Your task to perform on an android device: Go to Google maps Image 0: 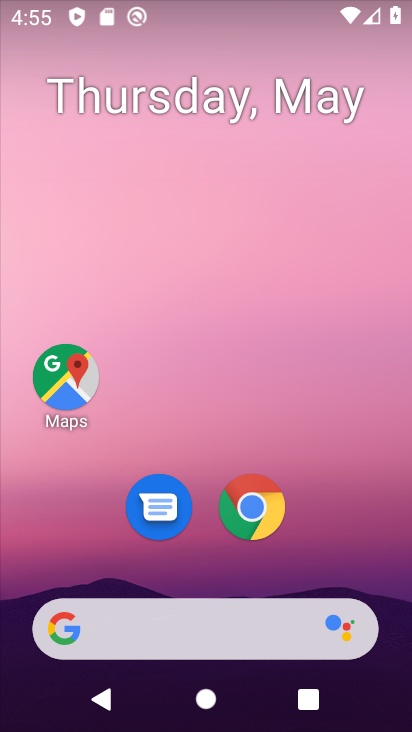
Step 0: drag from (344, 507) to (299, 127)
Your task to perform on an android device: Go to Google maps Image 1: 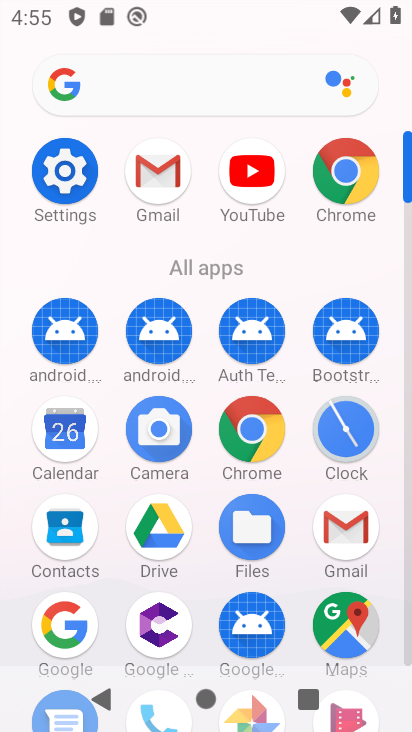
Step 1: click (343, 622)
Your task to perform on an android device: Go to Google maps Image 2: 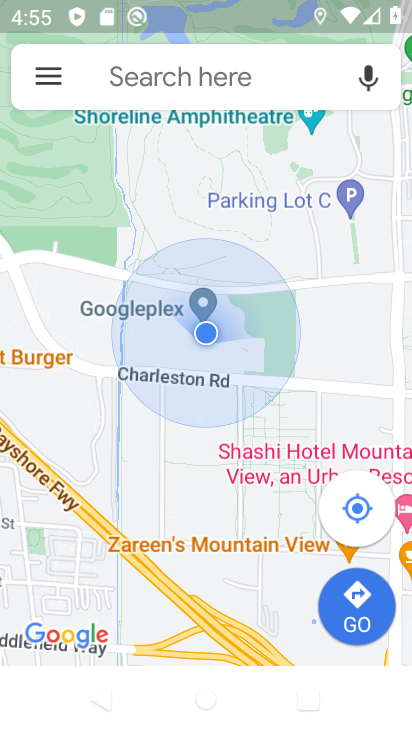
Step 2: task complete